Your task to perform on an android device: What is the news today? Image 0: 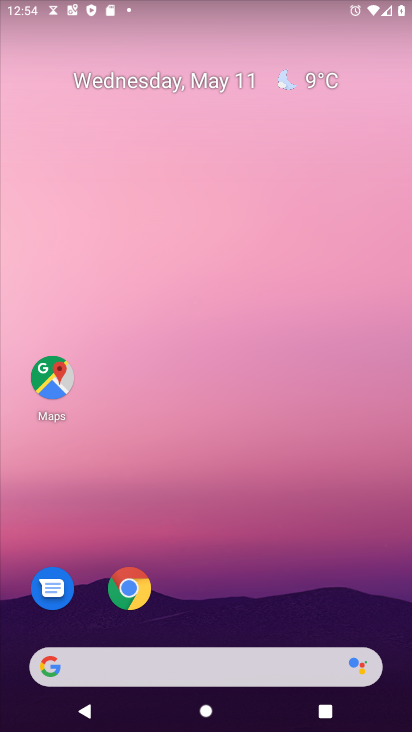
Step 0: click (111, 662)
Your task to perform on an android device: What is the news today? Image 1: 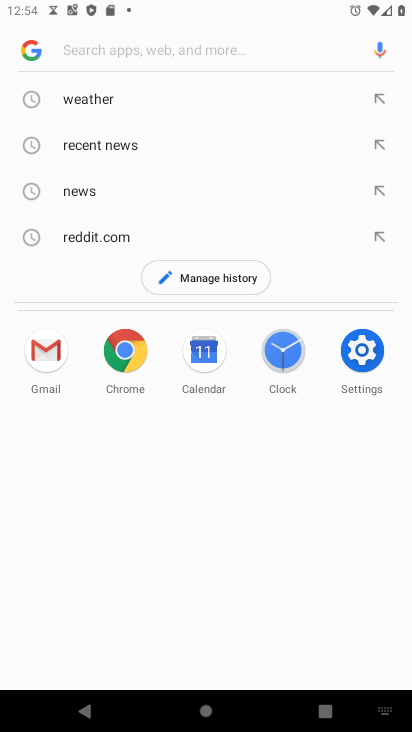
Step 1: type "today's news"
Your task to perform on an android device: What is the news today? Image 2: 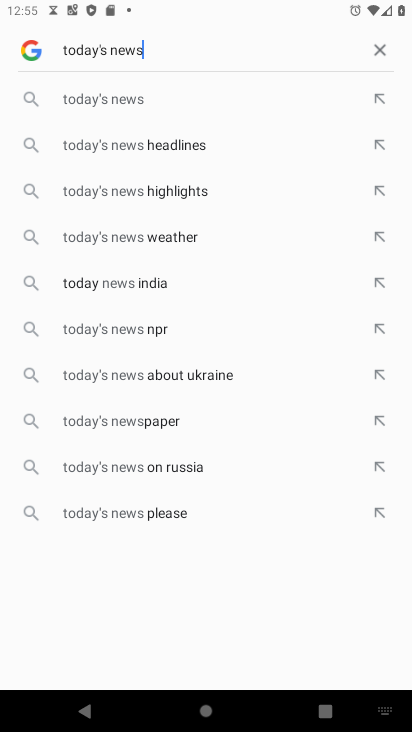
Step 2: click (119, 102)
Your task to perform on an android device: What is the news today? Image 3: 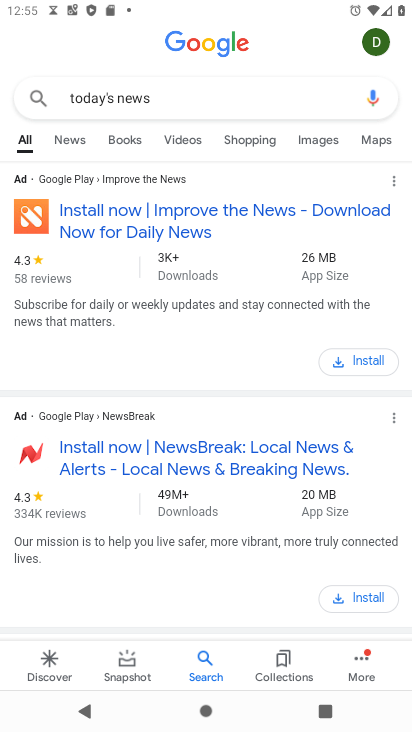
Step 3: click (80, 143)
Your task to perform on an android device: What is the news today? Image 4: 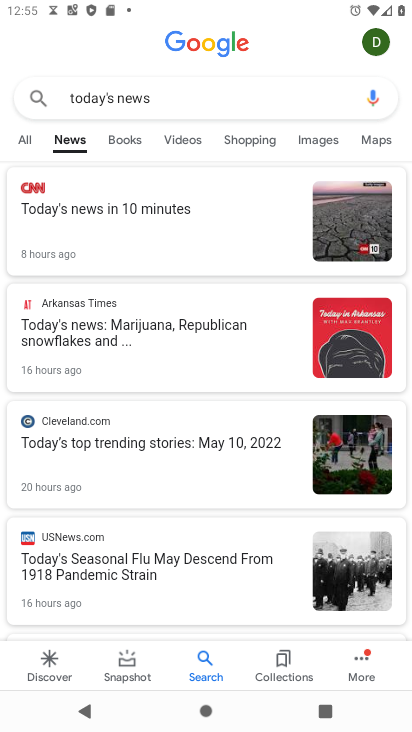
Step 4: click (107, 222)
Your task to perform on an android device: What is the news today? Image 5: 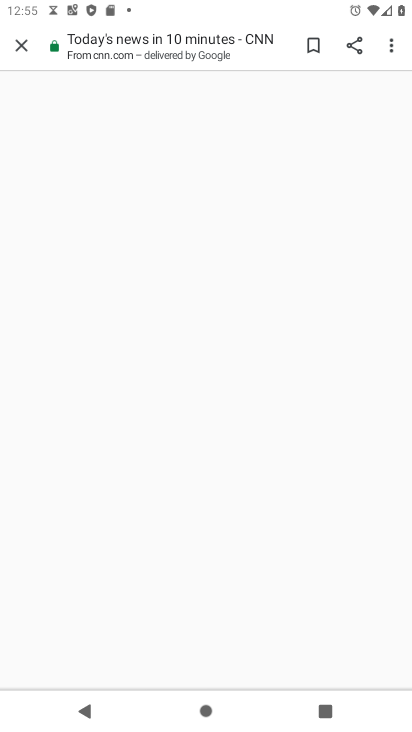
Step 5: drag from (241, 193) to (263, 367)
Your task to perform on an android device: What is the news today? Image 6: 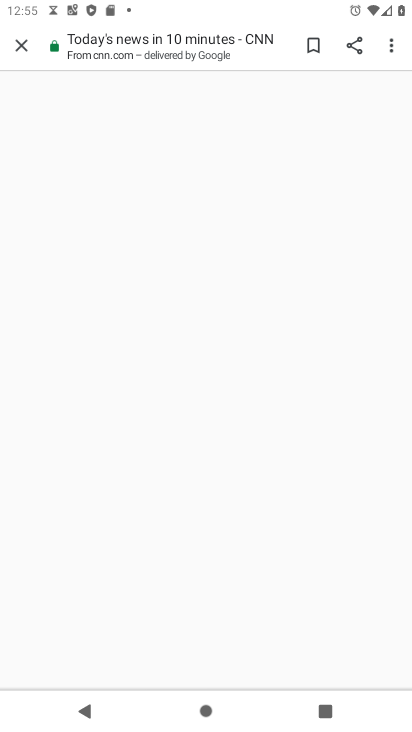
Step 6: drag from (303, 507) to (283, 148)
Your task to perform on an android device: What is the news today? Image 7: 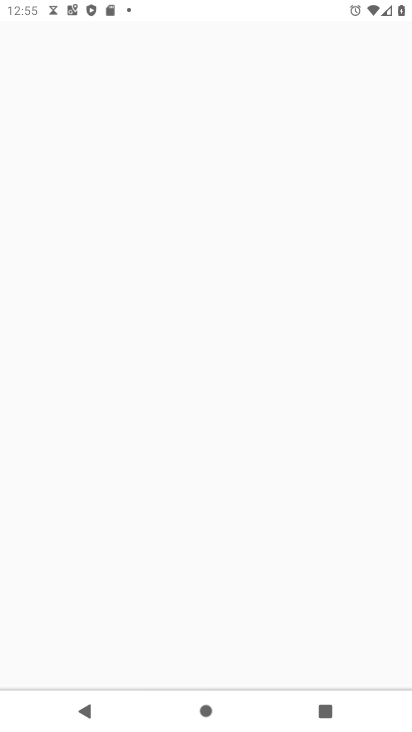
Step 7: drag from (283, 149) to (342, 611)
Your task to perform on an android device: What is the news today? Image 8: 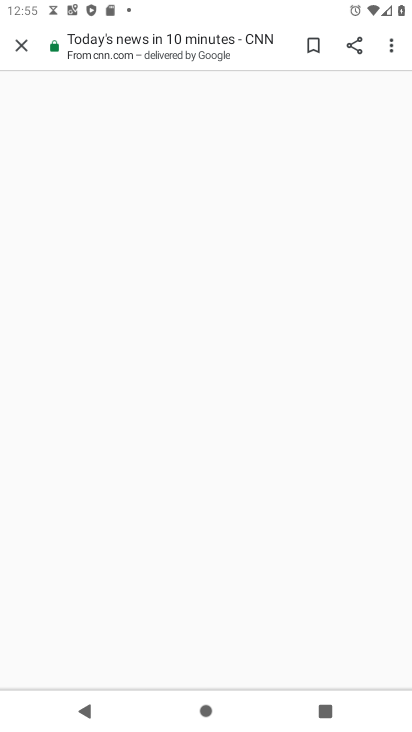
Step 8: click (11, 49)
Your task to perform on an android device: What is the news today? Image 9: 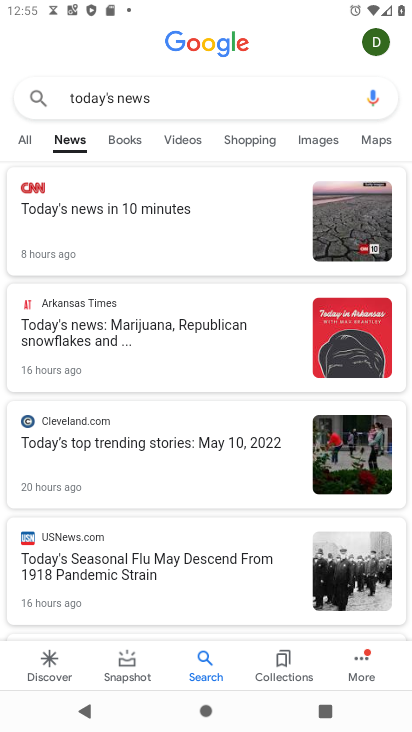
Step 9: drag from (181, 469) to (187, 297)
Your task to perform on an android device: What is the news today? Image 10: 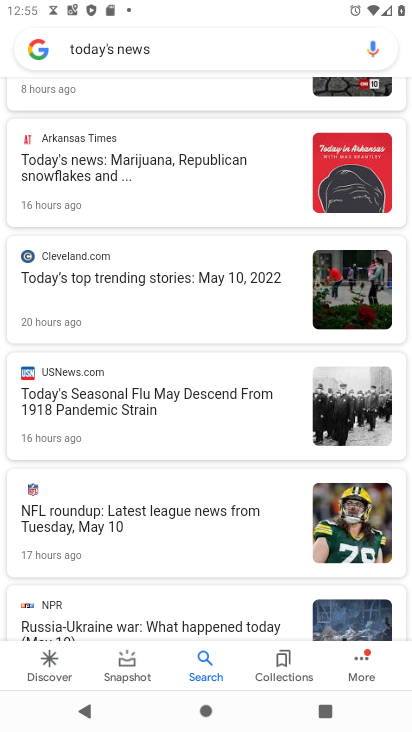
Step 10: drag from (172, 312) to (164, 552)
Your task to perform on an android device: What is the news today? Image 11: 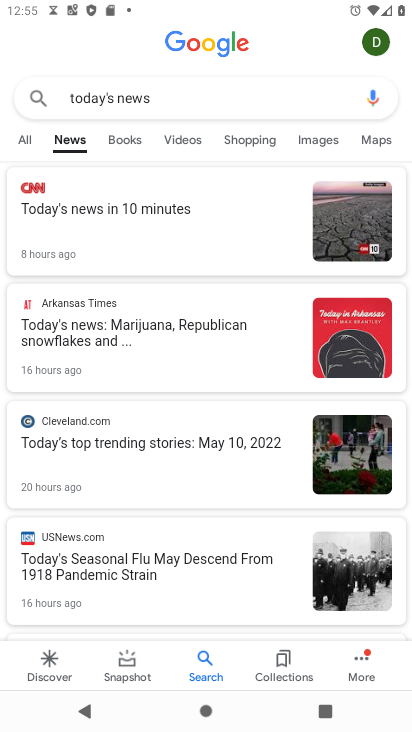
Step 11: click (109, 214)
Your task to perform on an android device: What is the news today? Image 12: 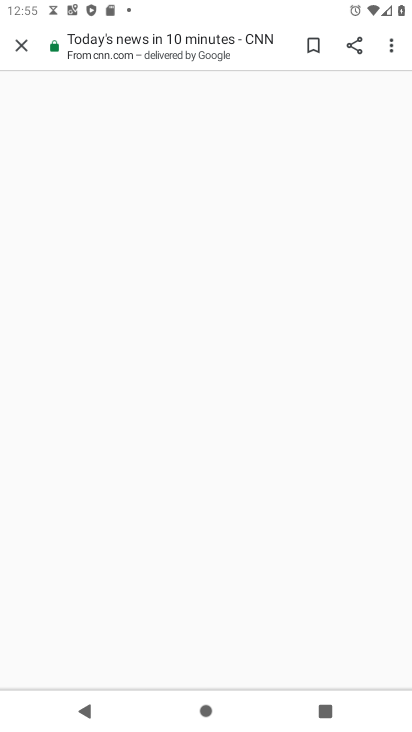
Step 12: drag from (159, 202) to (162, 428)
Your task to perform on an android device: What is the news today? Image 13: 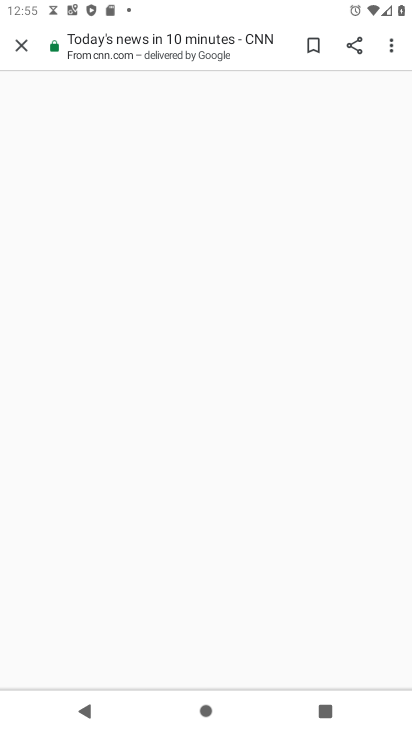
Step 13: click (21, 47)
Your task to perform on an android device: What is the news today? Image 14: 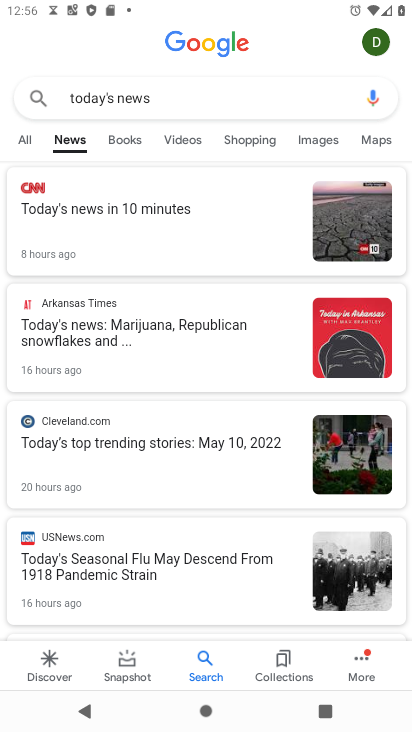
Step 14: click (23, 138)
Your task to perform on an android device: What is the news today? Image 15: 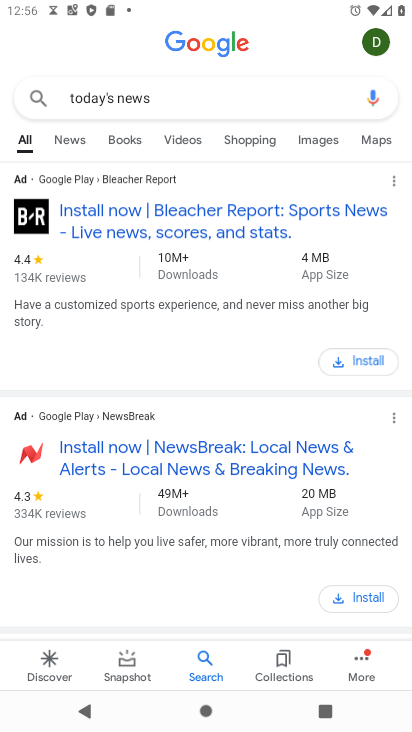
Step 15: drag from (185, 357) to (196, 198)
Your task to perform on an android device: What is the news today? Image 16: 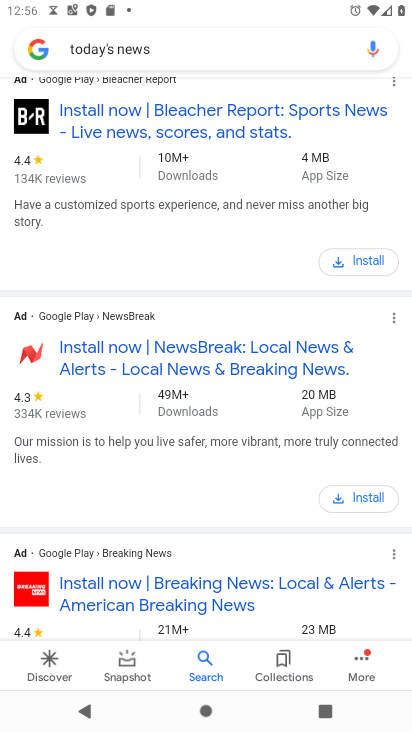
Step 16: drag from (157, 506) to (199, 169)
Your task to perform on an android device: What is the news today? Image 17: 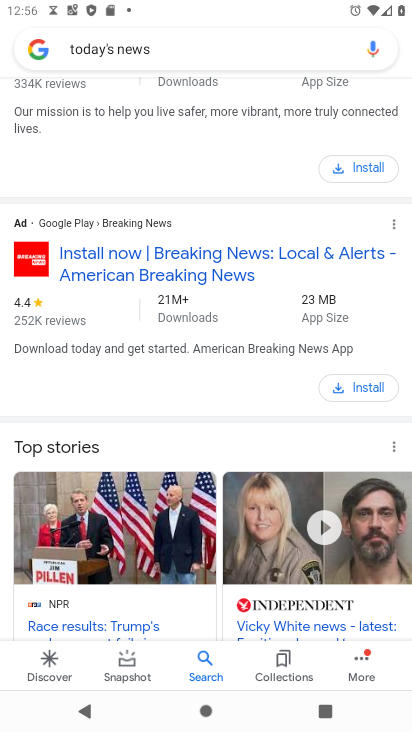
Step 17: drag from (175, 466) to (199, 186)
Your task to perform on an android device: What is the news today? Image 18: 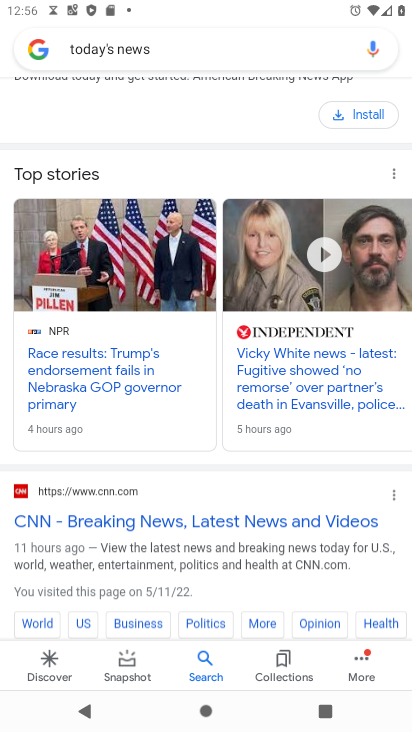
Step 18: click (114, 395)
Your task to perform on an android device: What is the news today? Image 19: 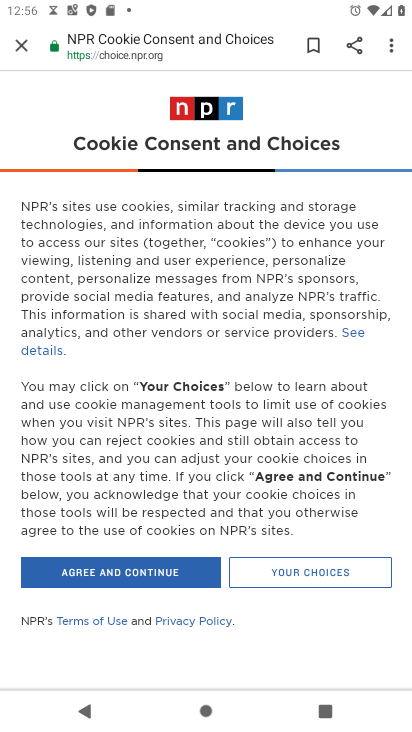
Step 19: task complete